Your task to perform on an android device: install app "Microsoft Outlook" Image 0: 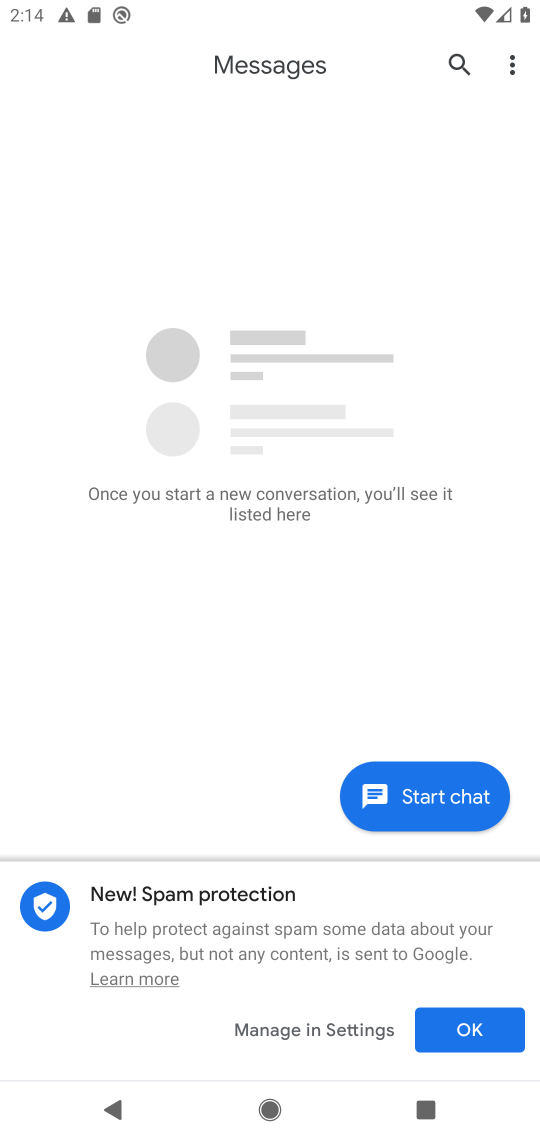
Step 0: press home button
Your task to perform on an android device: install app "Microsoft Outlook" Image 1: 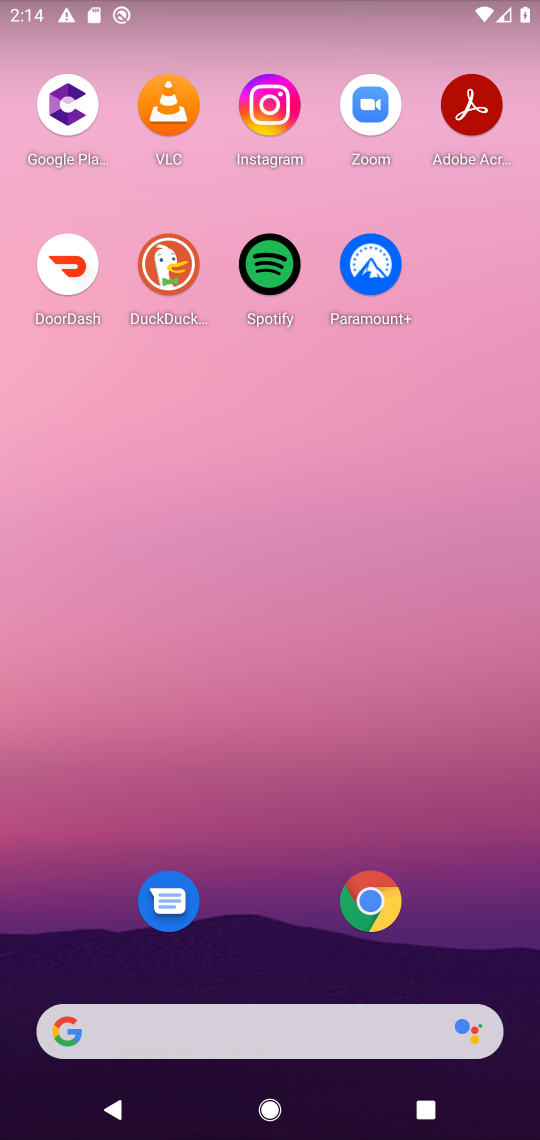
Step 1: drag from (473, 962) to (444, 48)
Your task to perform on an android device: install app "Microsoft Outlook" Image 2: 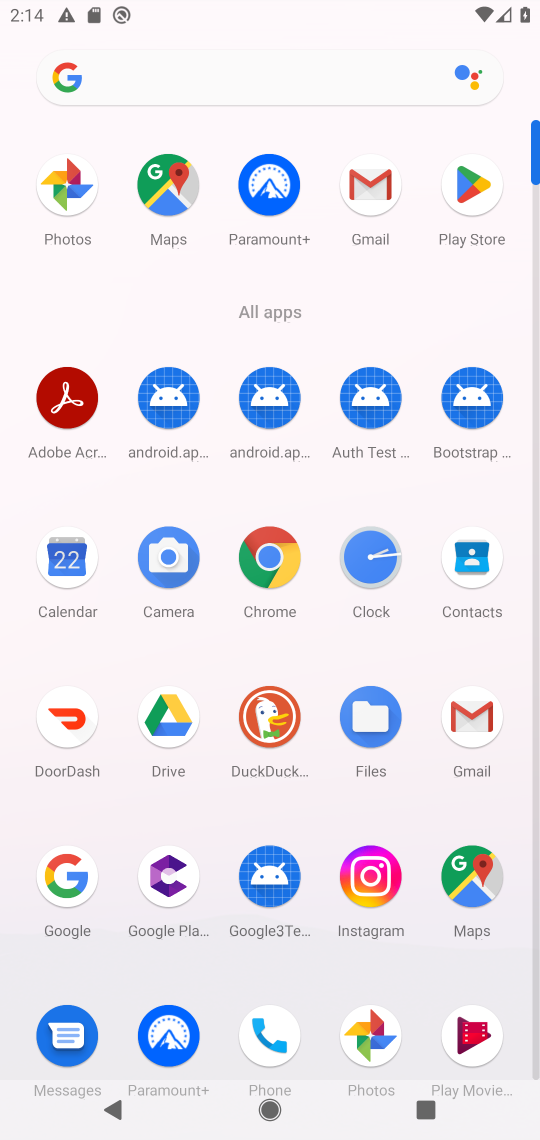
Step 2: drag from (312, 969) to (292, 391)
Your task to perform on an android device: install app "Microsoft Outlook" Image 3: 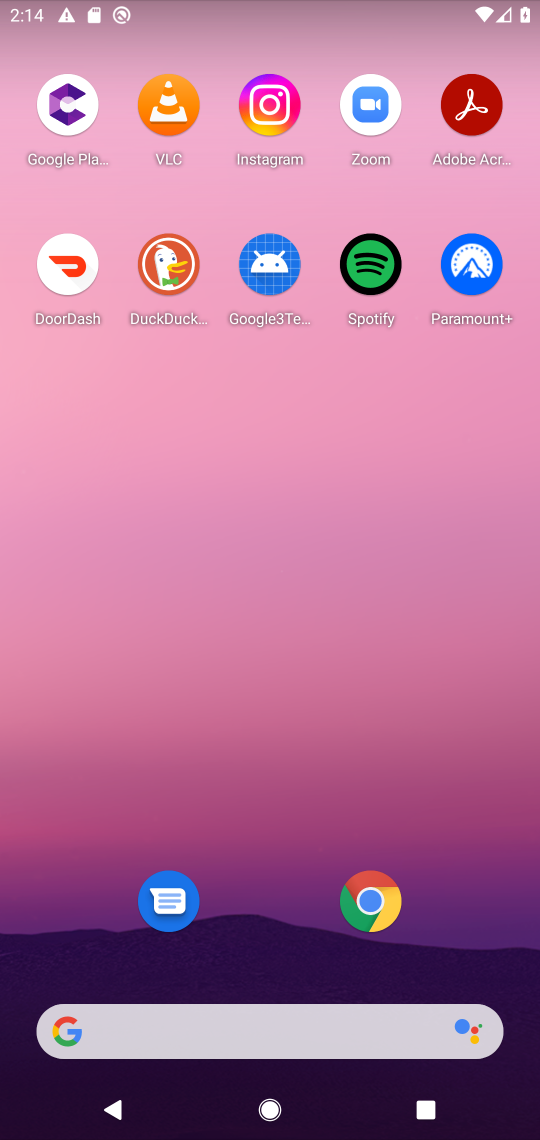
Step 3: drag from (284, 957) to (331, 201)
Your task to perform on an android device: install app "Microsoft Outlook" Image 4: 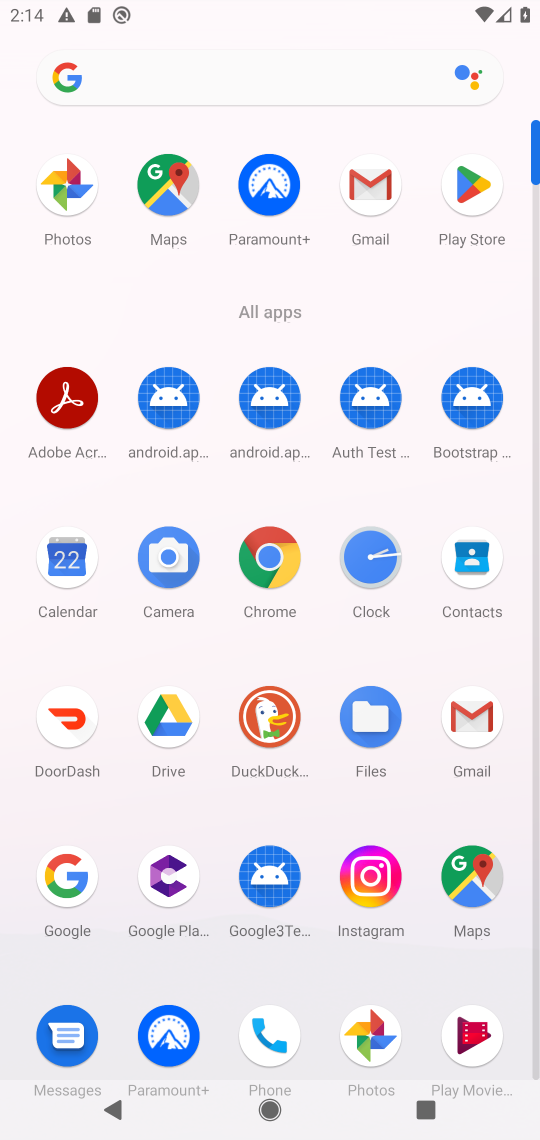
Step 4: click (476, 180)
Your task to perform on an android device: install app "Microsoft Outlook" Image 5: 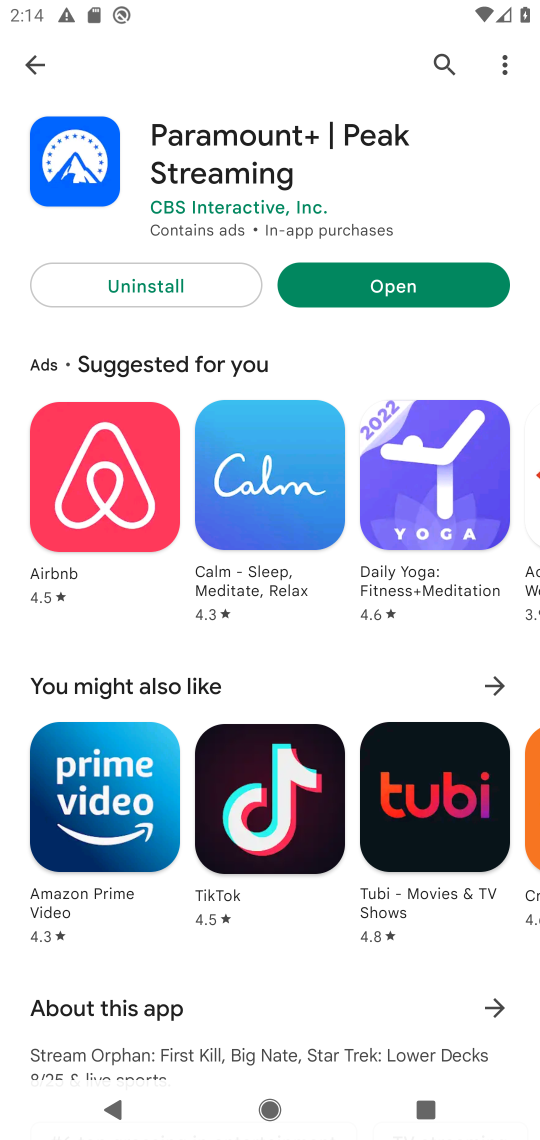
Step 5: click (440, 62)
Your task to perform on an android device: install app "Microsoft Outlook" Image 6: 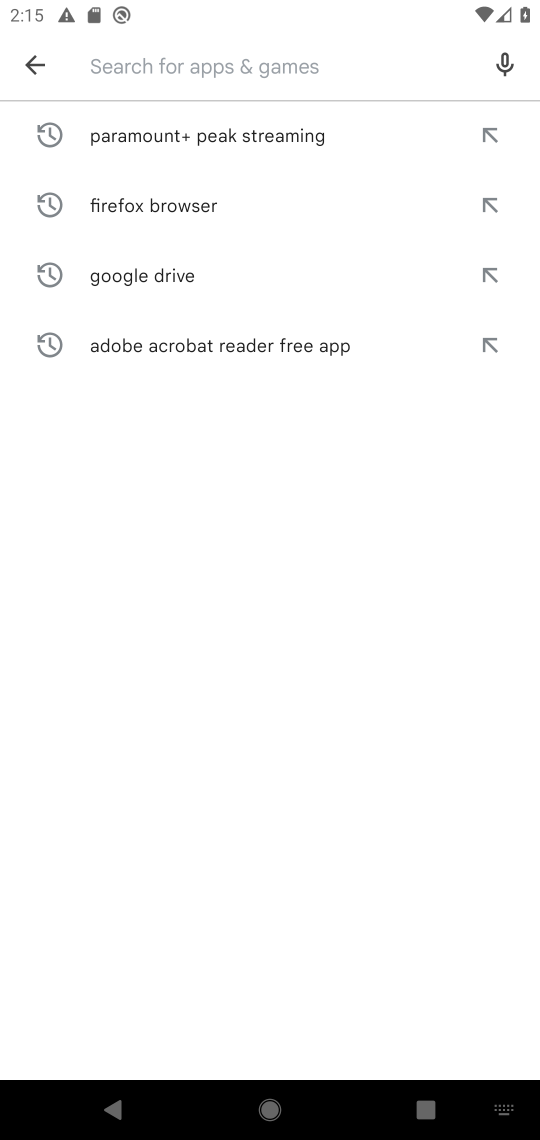
Step 6: type "Microsoft Outlook"
Your task to perform on an android device: install app "Microsoft Outlook" Image 7: 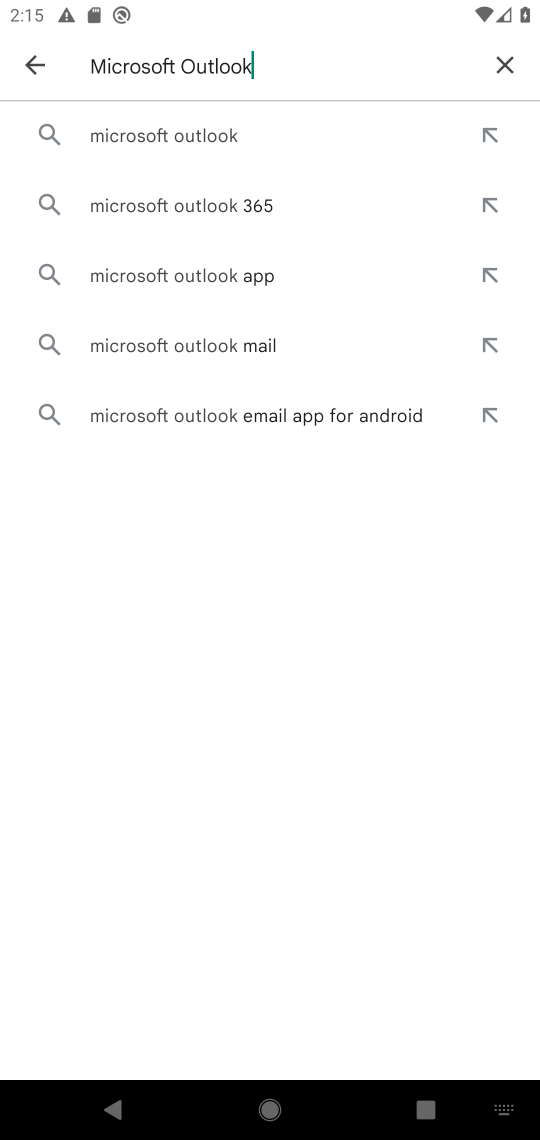
Step 7: click (142, 129)
Your task to perform on an android device: install app "Microsoft Outlook" Image 8: 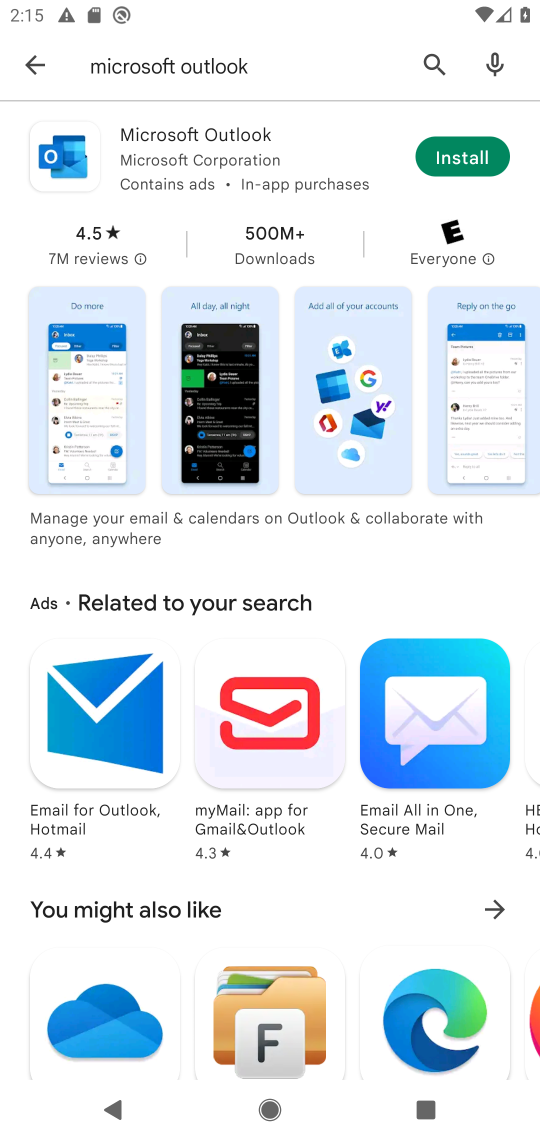
Step 8: click (158, 140)
Your task to perform on an android device: install app "Microsoft Outlook" Image 9: 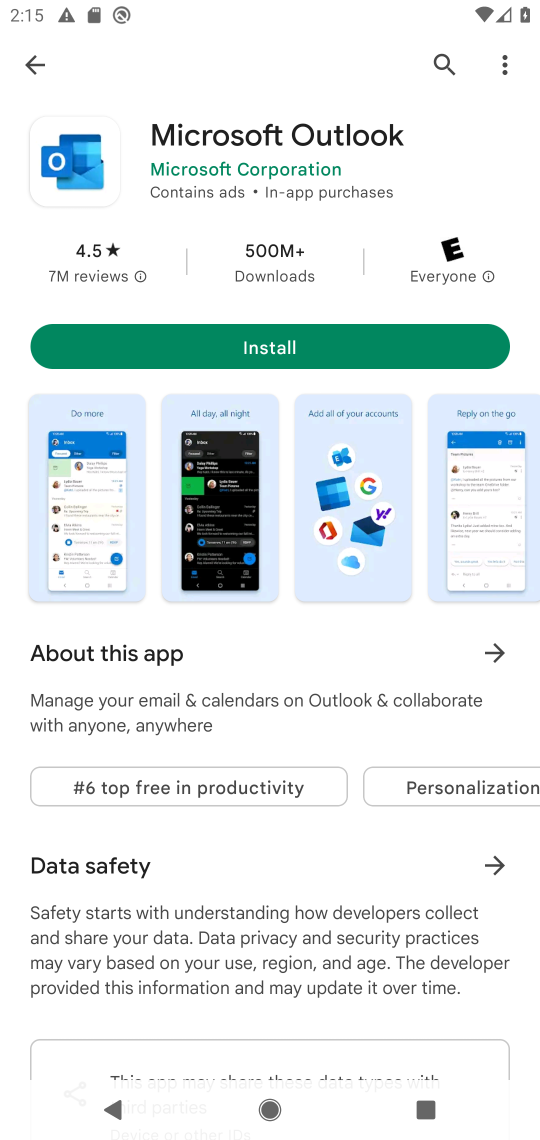
Step 9: click (268, 346)
Your task to perform on an android device: install app "Microsoft Outlook" Image 10: 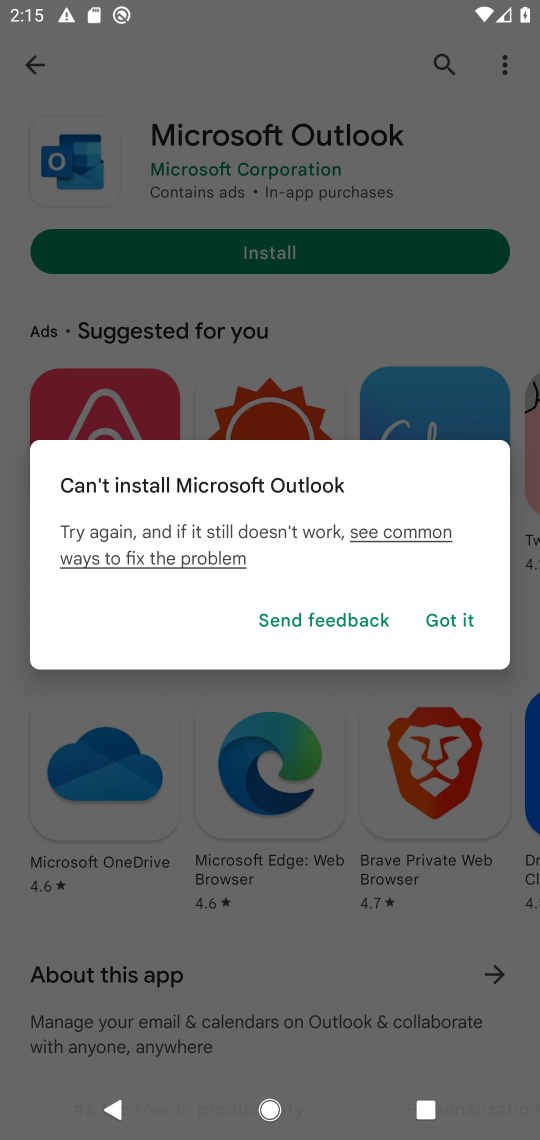
Step 10: click (445, 616)
Your task to perform on an android device: install app "Microsoft Outlook" Image 11: 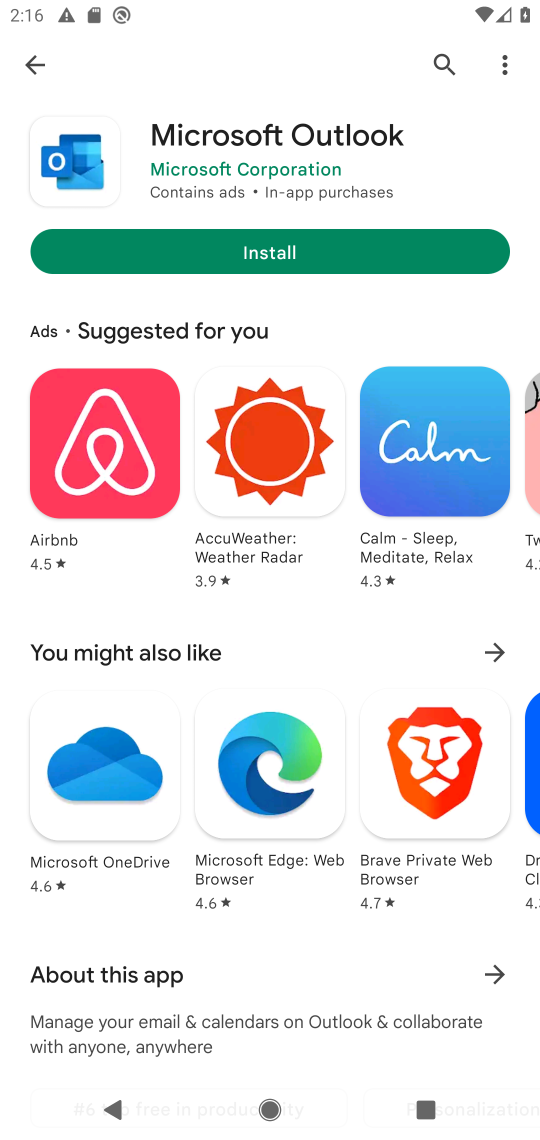
Step 11: click (266, 257)
Your task to perform on an android device: install app "Microsoft Outlook" Image 12: 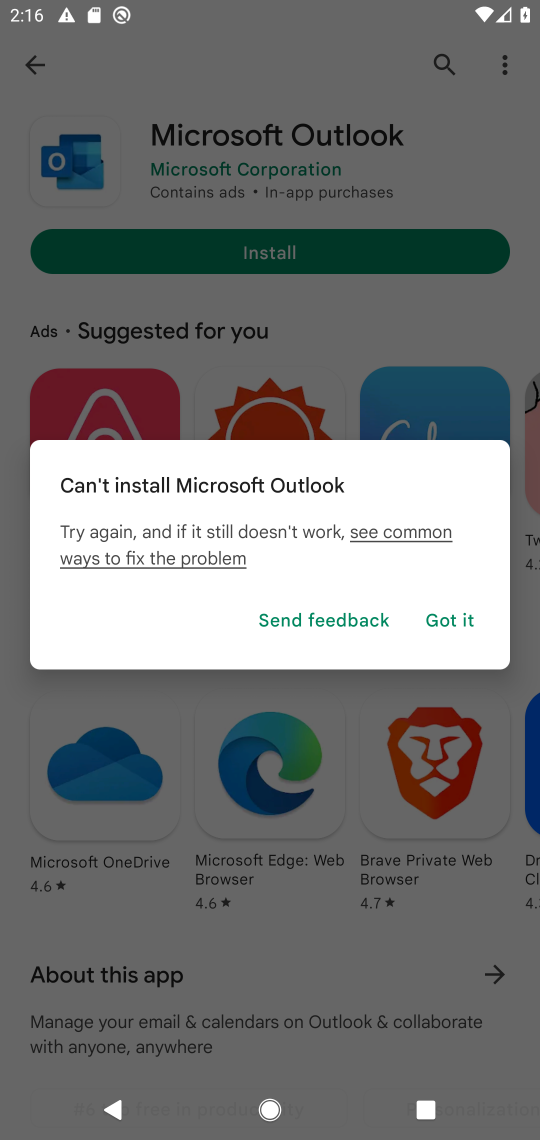
Step 12: click (448, 625)
Your task to perform on an android device: install app "Microsoft Outlook" Image 13: 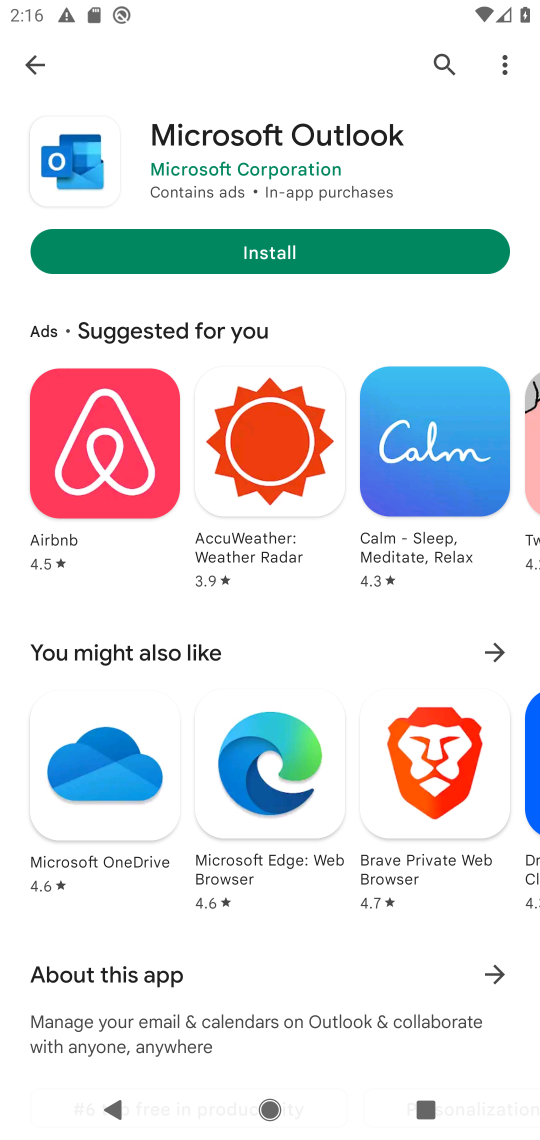
Step 13: task complete